Your task to perform on an android device: turn off notifications settings in the gmail app Image 0: 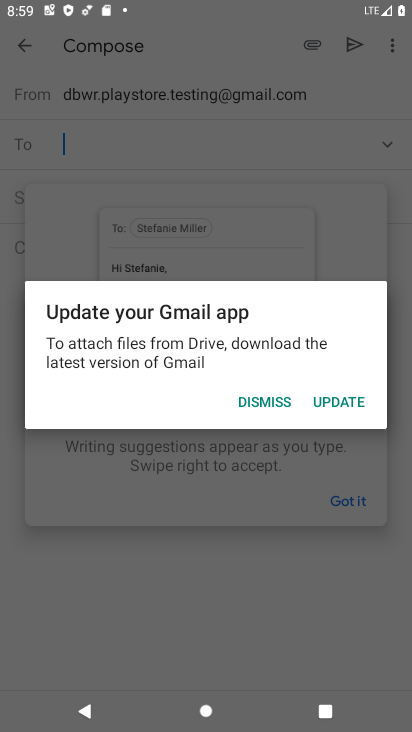
Step 0: press home button
Your task to perform on an android device: turn off notifications settings in the gmail app Image 1: 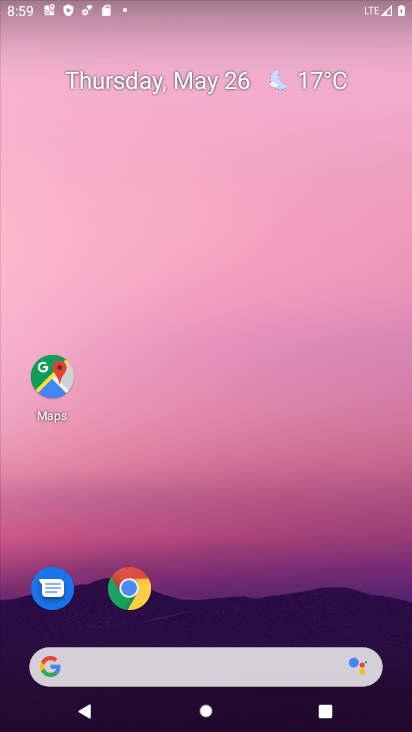
Step 1: drag from (377, 613) to (339, 35)
Your task to perform on an android device: turn off notifications settings in the gmail app Image 2: 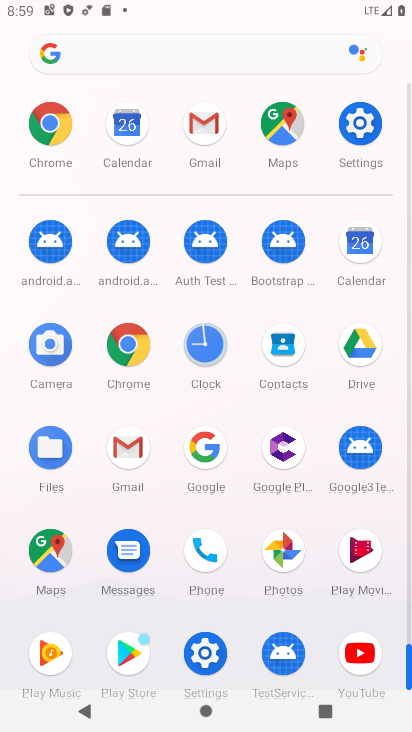
Step 2: click (127, 447)
Your task to perform on an android device: turn off notifications settings in the gmail app Image 3: 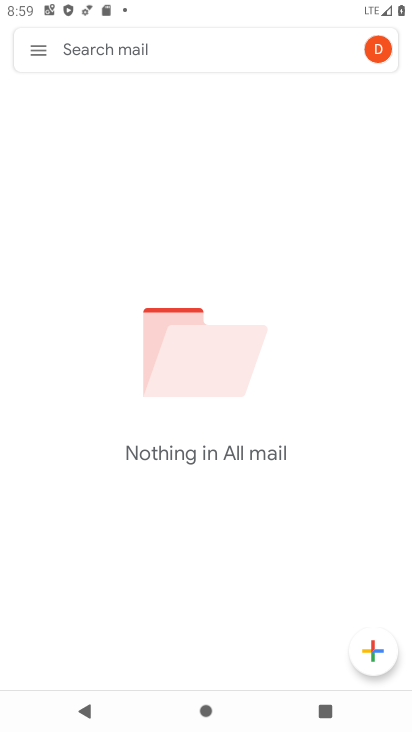
Step 3: click (35, 46)
Your task to perform on an android device: turn off notifications settings in the gmail app Image 4: 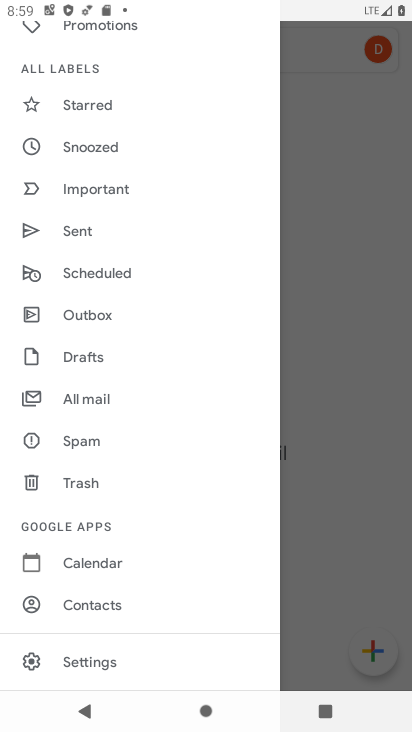
Step 4: click (78, 654)
Your task to perform on an android device: turn off notifications settings in the gmail app Image 5: 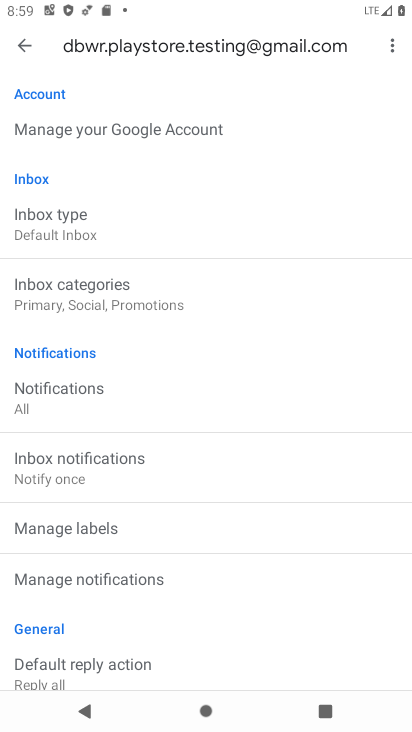
Step 5: click (121, 577)
Your task to perform on an android device: turn off notifications settings in the gmail app Image 6: 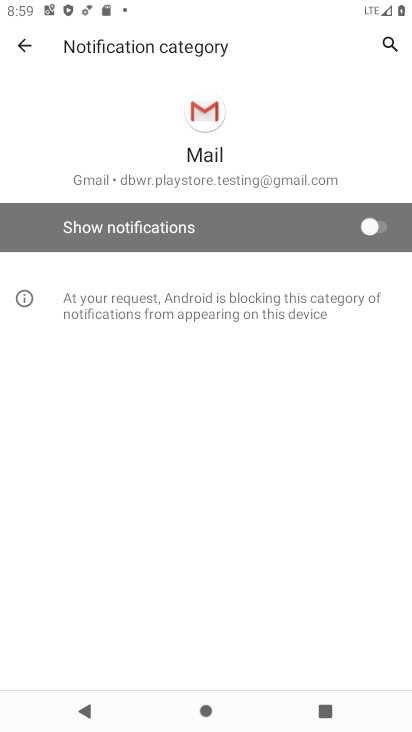
Step 6: task complete